Your task to perform on an android device: Search for Italian restaurants on Maps Image 0: 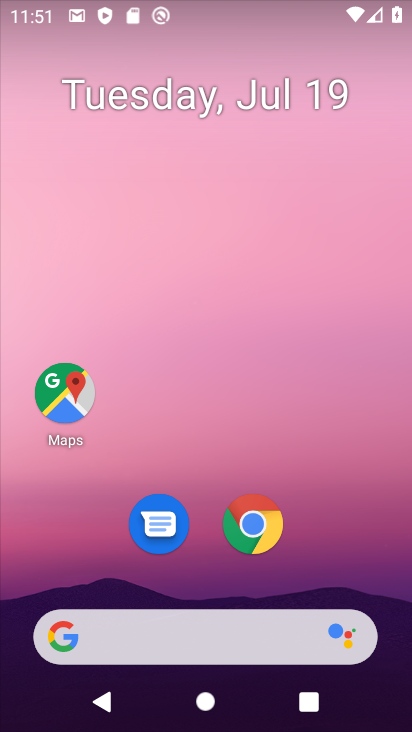
Step 0: click (61, 385)
Your task to perform on an android device: Search for Italian restaurants on Maps Image 1: 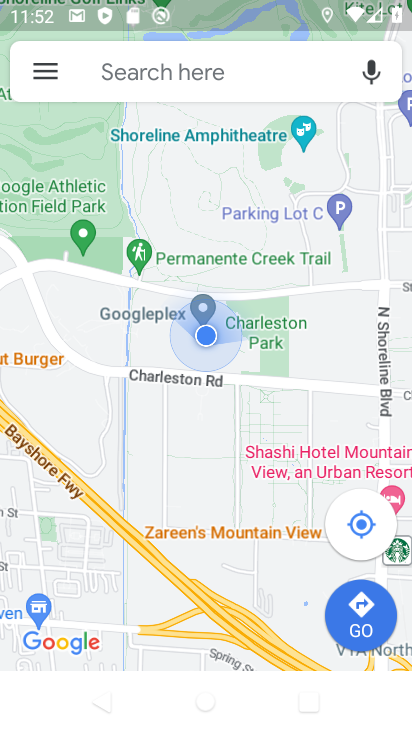
Step 1: click (164, 71)
Your task to perform on an android device: Search for Italian restaurants on Maps Image 2: 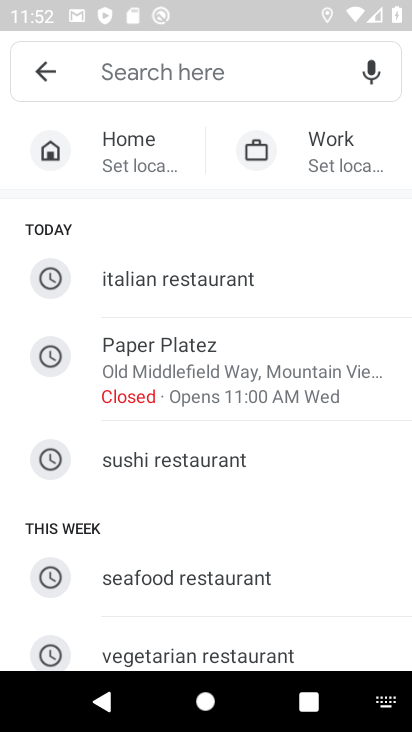
Step 2: click (225, 277)
Your task to perform on an android device: Search for Italian restaurants on Maps Image 3: 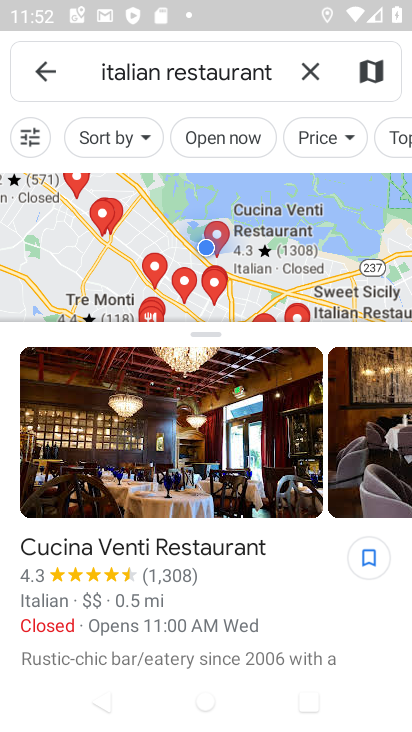
Step 3: task complete